Your task to perform on an android device: turn pop-ups off in chrome Image 0: 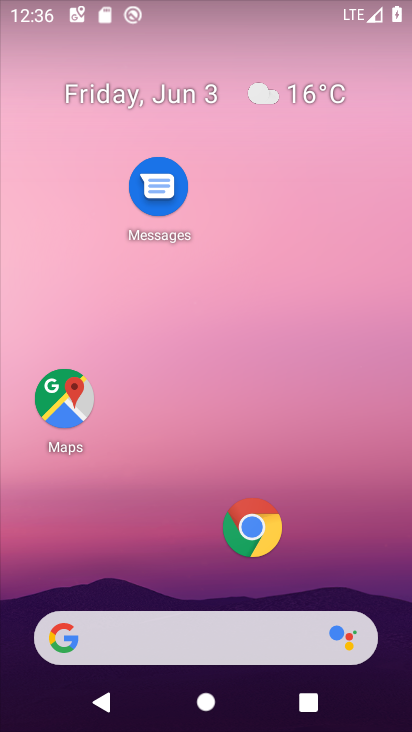
Step 0: click (253, 521)
Your task to perform on an android device: turn pop-ups off in chrome Image 1: 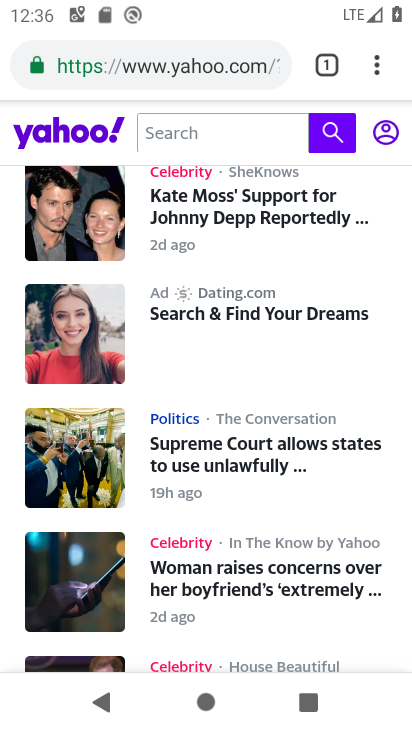
Step 1: click (375, 54)
Your task to perform on an android device: turn pop-ups off in chrome Image 2: 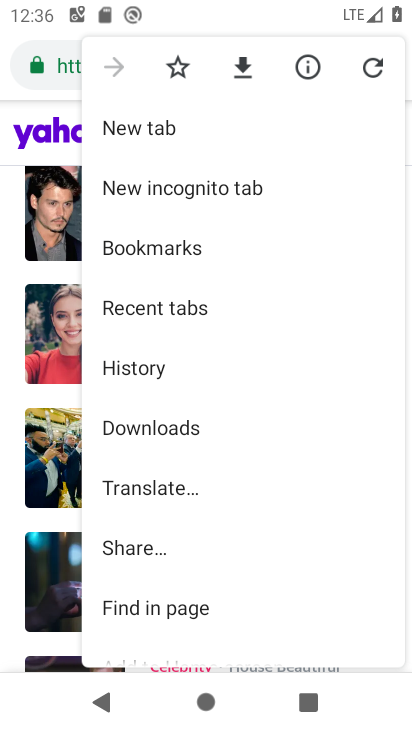
Step 2: drag from (199, 617) to (237, 87)
Your task to perform on an android device: turn pop-ups off in chrome Image 3: 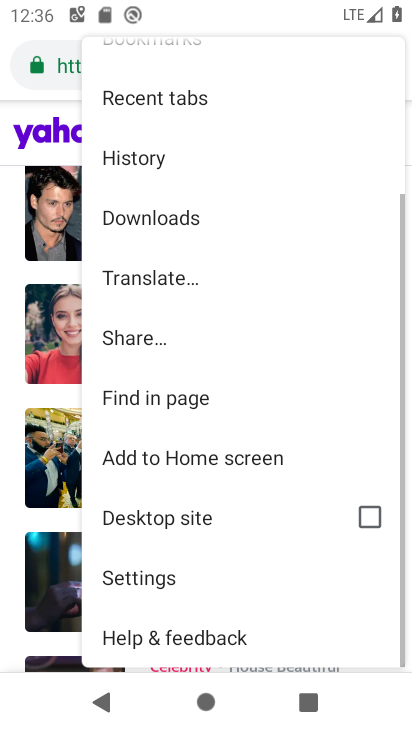
Step 3: click (181, 575)
Your task to perform on an android device: turn pop-ups off in chrome Image 4: 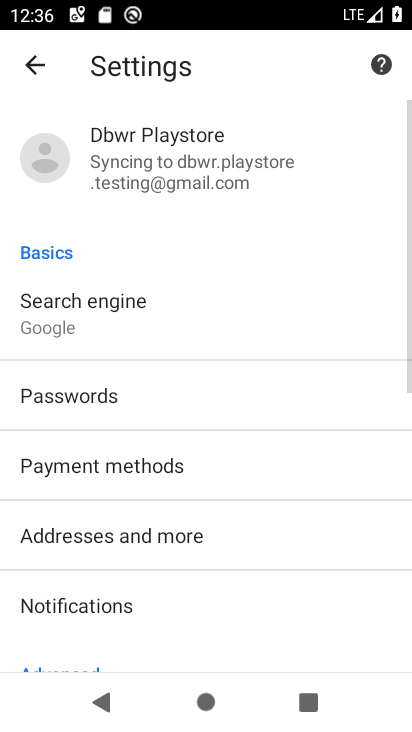
Step 4: drag from (203, 606) to (258, 160)
Your task to perform on an android device: turn pop-ups off in chrome Image 5: 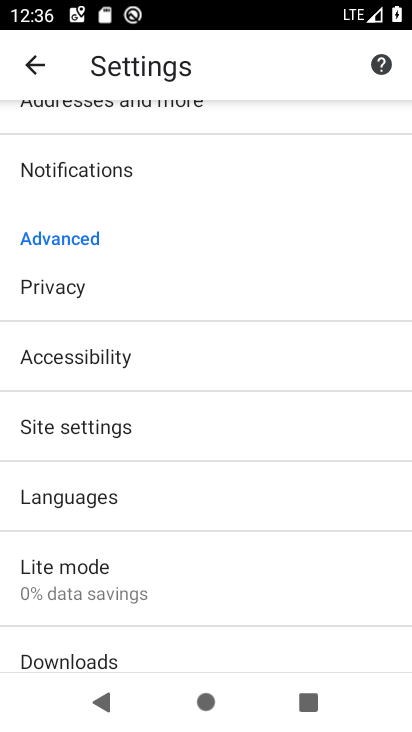
Step 5: drag from (161, 598) to (182, 204)
Your task to perform on an android device: turn pop-ups off in chrome Image 6: 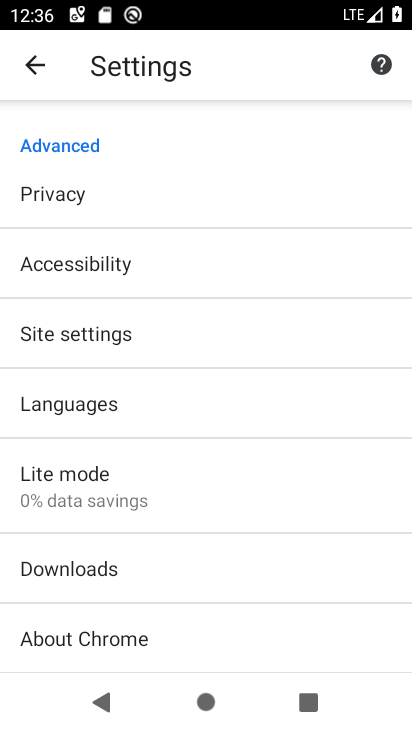
Step 6: click (148, 327)
Your task to perform on an android device: turn pop-ups off in chrome Image 7: 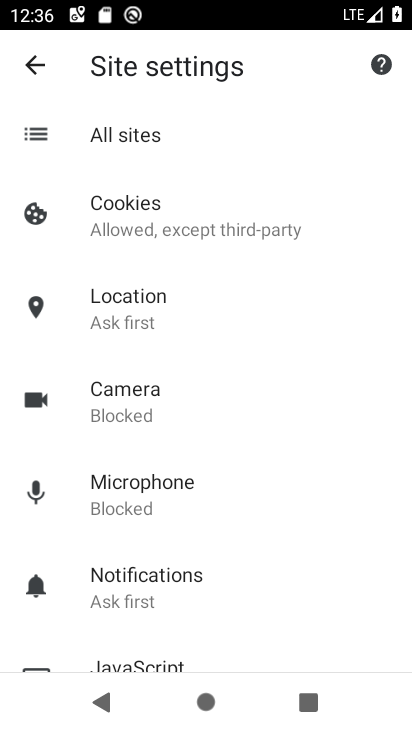
Step 7: drag from (198, 604) to (224, 247)
Your task to perform on an android device: turn pop-ups off in chrome Image 8: 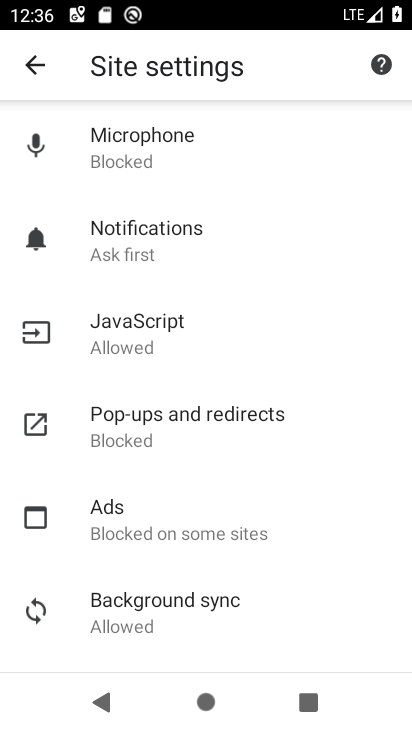
Step 8: click (197, 422)
Your task to perform on an android device: turn pop-ups off in chrome Image 9: 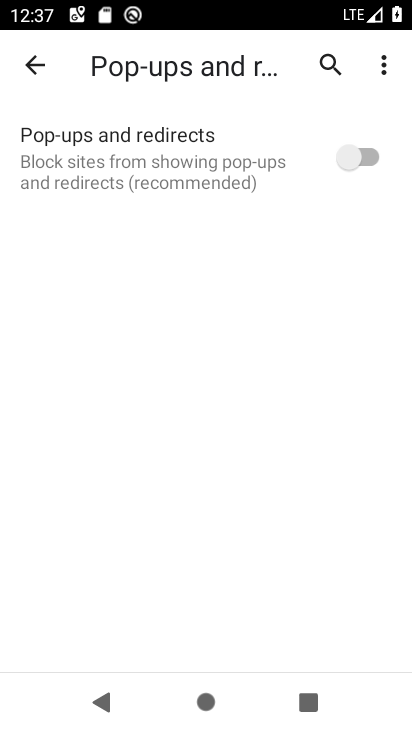
Step 9: task complete